Your task to perform on an android device: Open Google Chrome and click the shortcut for Amazon.com Image 0: 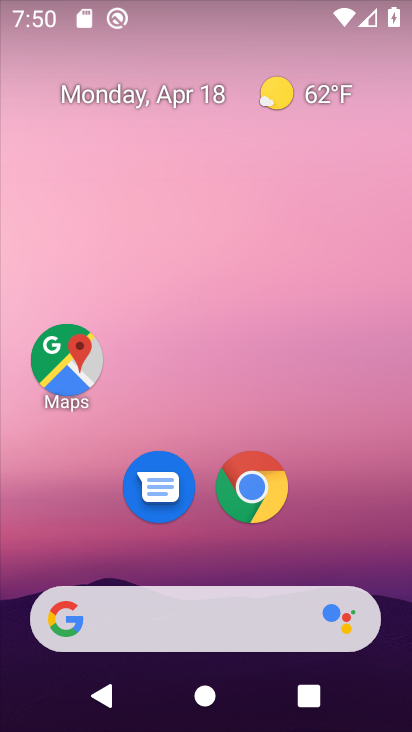
Step 0: press home button
Your task to perform on an android device: Open Google Chrome and click the shortcut for Amazon.com Image 1: 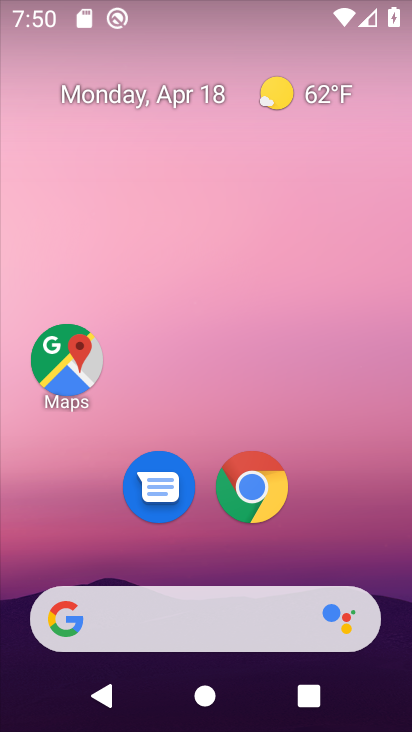
Step 1: click (256, 478)
Your task to perform on an android device: Open Google Chrome and click the shortcut for Amazon.com Image 2: 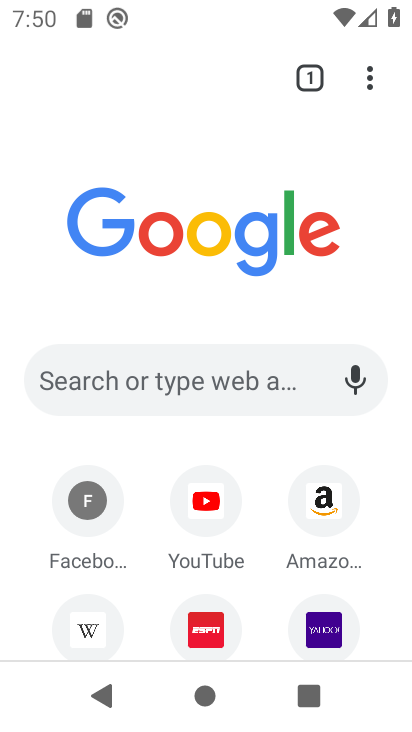
Step 2: click (336, 499)
Your task to perform on an android device: Open Google Chrome and click the shortcut for Amazon.com Image 3: 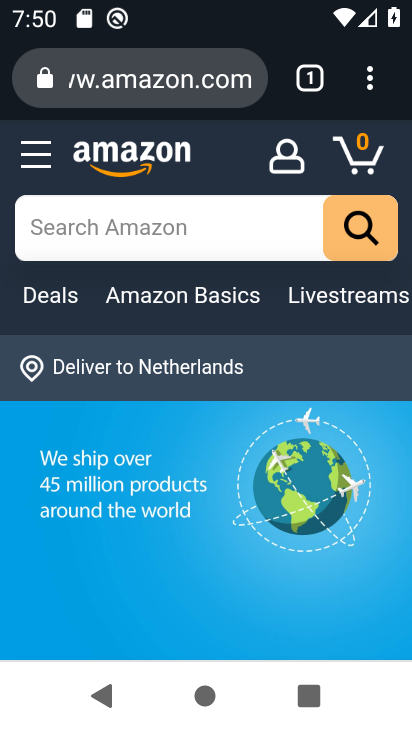
Step 3: task complete